Your task to perform on an android device: change the clock style Image 0: 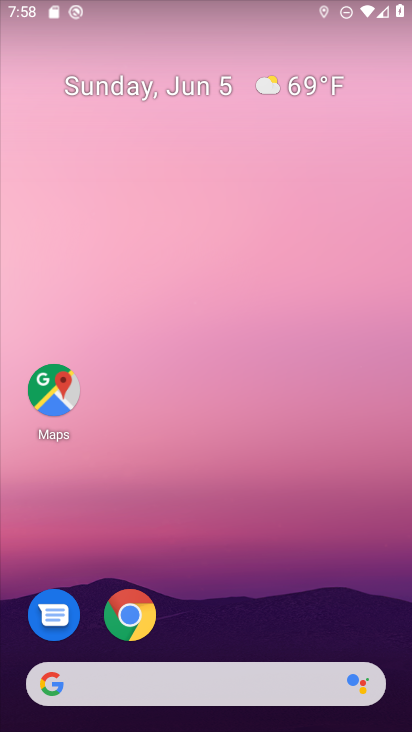
Step 0: drag from (203, 635) to (202, 151)
Your task to perform on an android device: change the clock style Image 1: 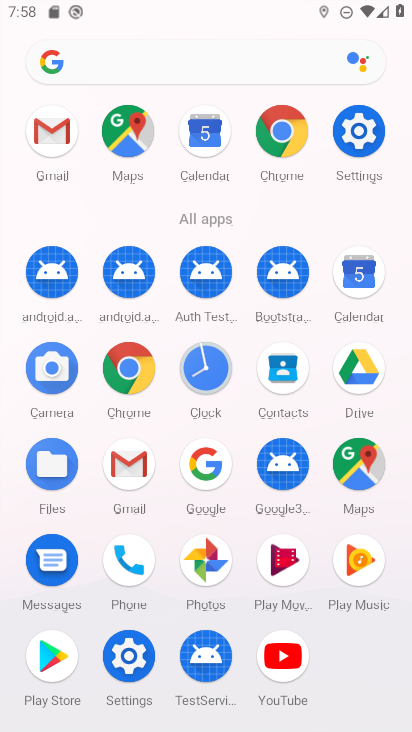
Step 1: click (205, 375)
Your task to perform on an android device: change the clock style Image 2: 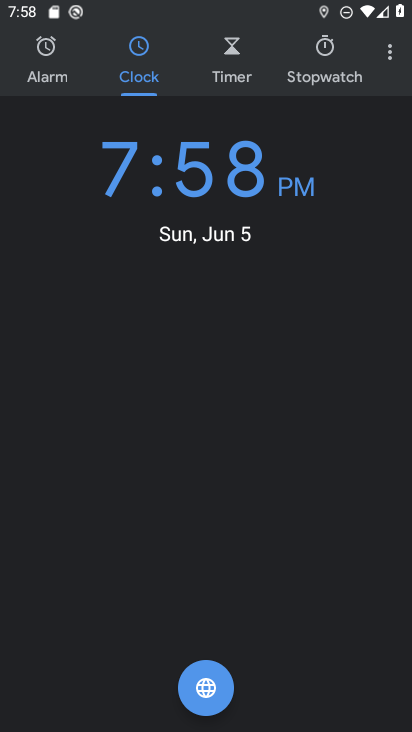
Step 2: click (394, 67)
Your task to perform on an android device: change the clock style Image 3: 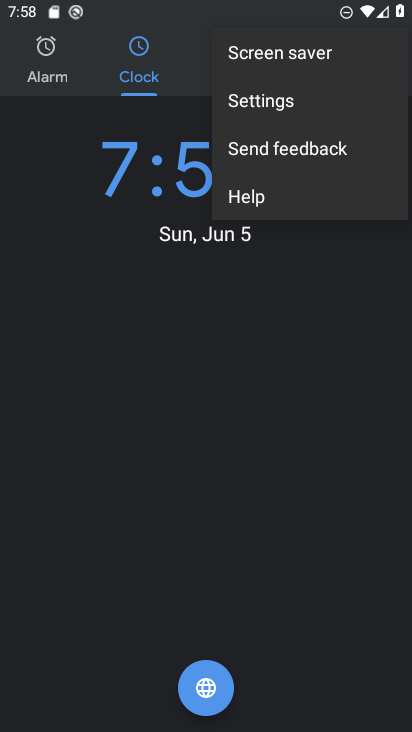
Step 3: click (265, 96)
Your task to perform on an android device: change the clock style Image 4: 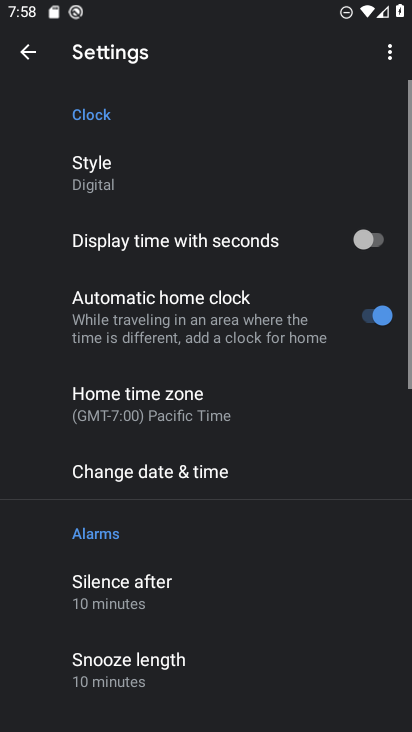
Step 4: click (135, 172)
Your task to perform on an android device: change the clock style Image 5: 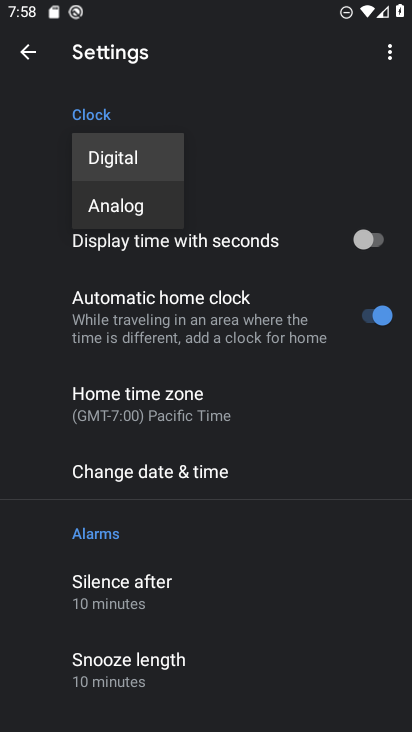
Step 5: click (100, 208)
Your task to perform on an android device: change the clock style Image 6: 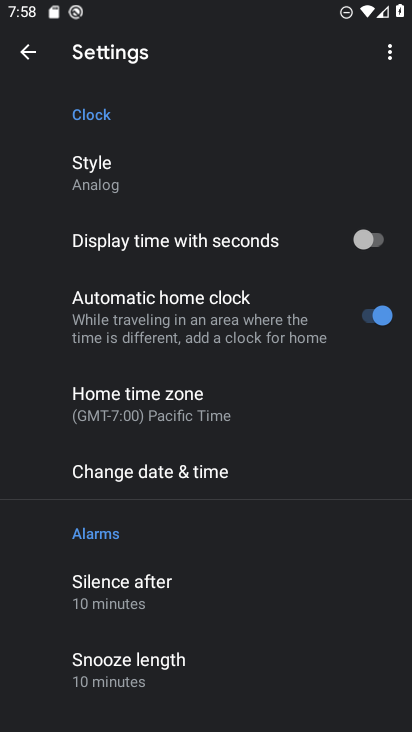
Step 6: task complete